Your task to perform on an android device: move an email to a new category in the gmail app Image 0: 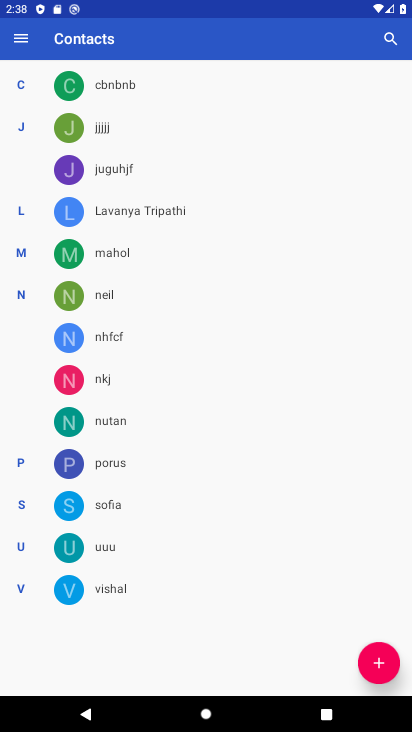
Step 0: press home button
Your task to perform on an android device: move an email to a new category in the gmail app Image 1: 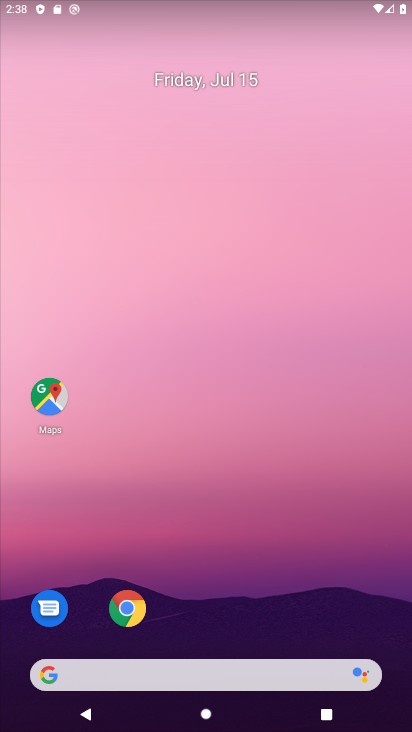
Step 1: drag from (222, 650) to (236, 253)
Your task to perform on an android device: move an email to a new category in the gmail app Image 2: 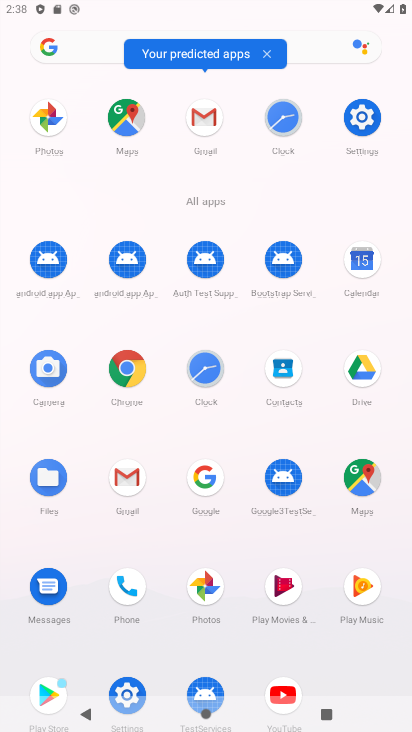
Step 2: click (122, 475)
Your task to perform on an android device: move an email to a new category in the gmail app Image 3: 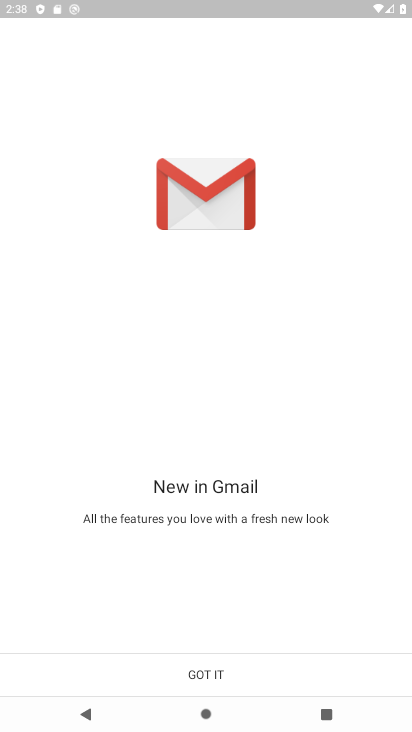
Step 3: click (208, 685)
Your task to perform on an android device: move an email to a new category in the gmail app Image 4: 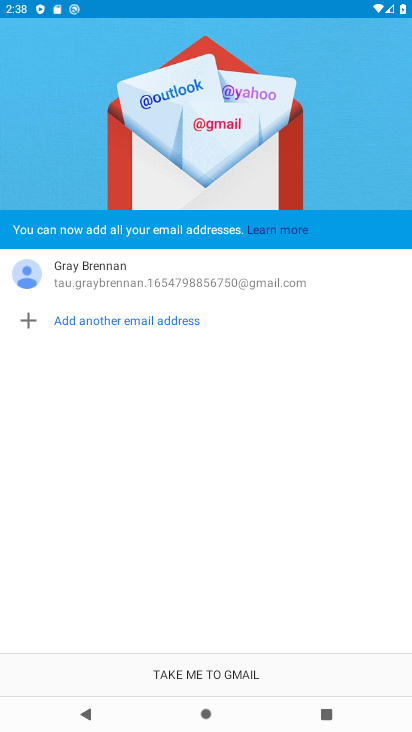
Step 4: click (208, 685)
Your task to perform on an android device: move an email to a new category in the gmail app Image 5: 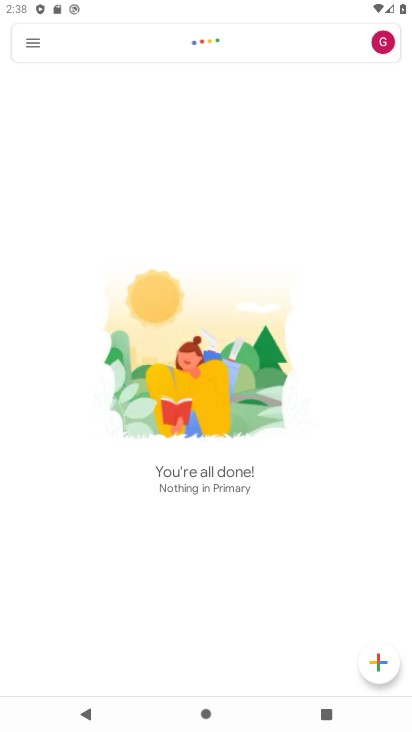
Step 5: click (41, 40)
Your task to perform on an android device: move an email to a new category in the gmail app Image 6: 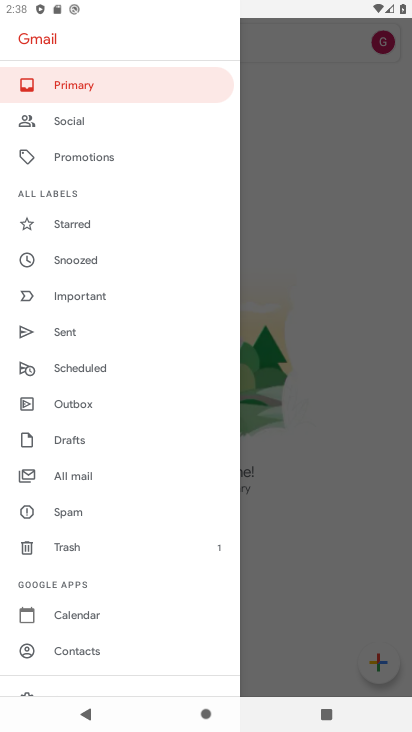
Step 6: click (95, 480)
Your task to perform on an android device: move an email to a new category in the gmail app Image 7: 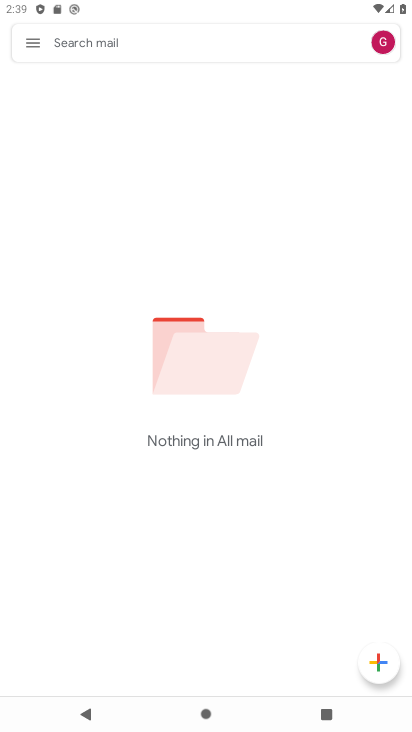
Step 7: task complete